Your task to perform on an android device: turn off data saver in the chrome app Image 0: 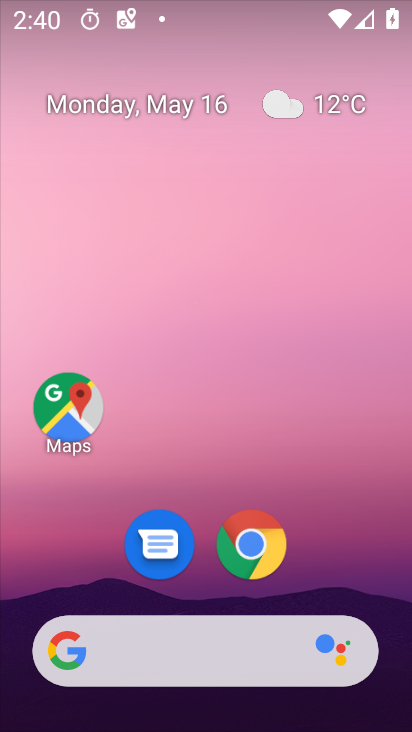
Step 0: click (250, 550)
Your task to perform on an android device: turn off data saver in the chrome app Image 1: 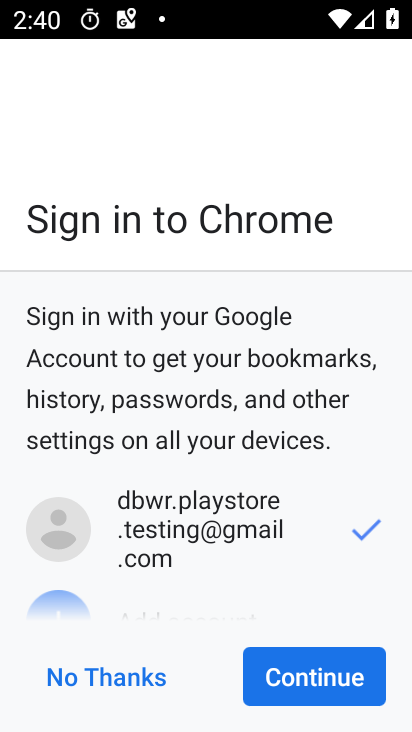
Step 1: click (327, 672)
Your task to perform on an android device: turn off data saver in the chrome app Image 2: 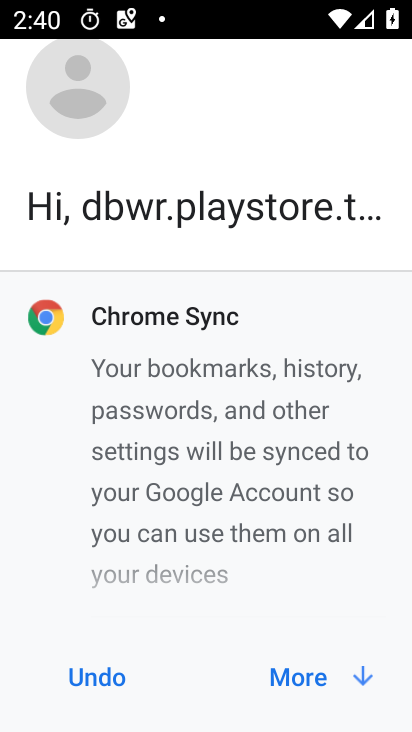
Step 2: click (327, 672)
Your task to perform on an android device: turn off data saver in the chrome app Image 3: 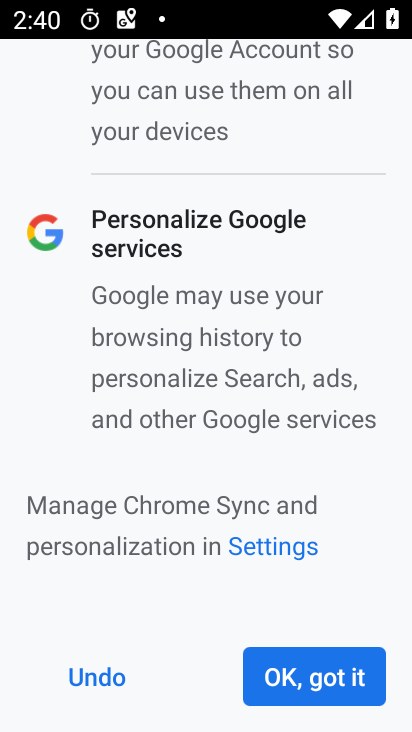
Step 3: click (316, 658)
Your task to perform on an android device: turn off data saver in the chrome app Image 4: 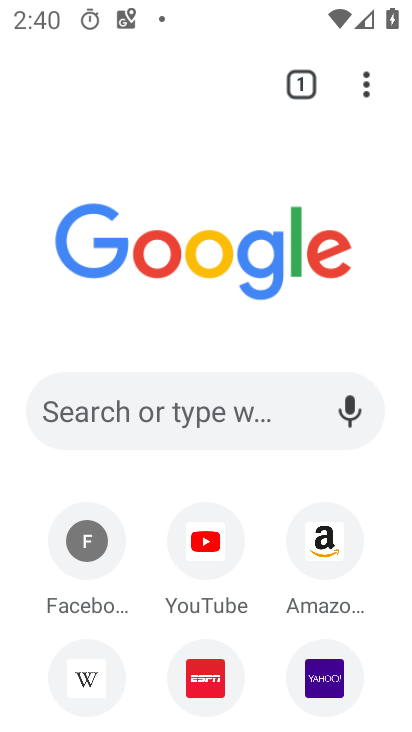
Step 4: click (366, 93)
Your task to perform on an android device: turn off data saver in the chrome app Image 5: 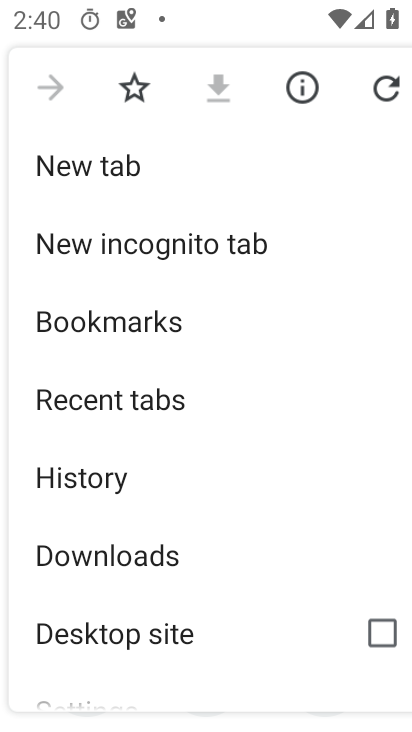
Step 5: drag from (148, 652) to (152, 269)
Your task to perform on an android device: turn off data saver in the chrome app Image 6: 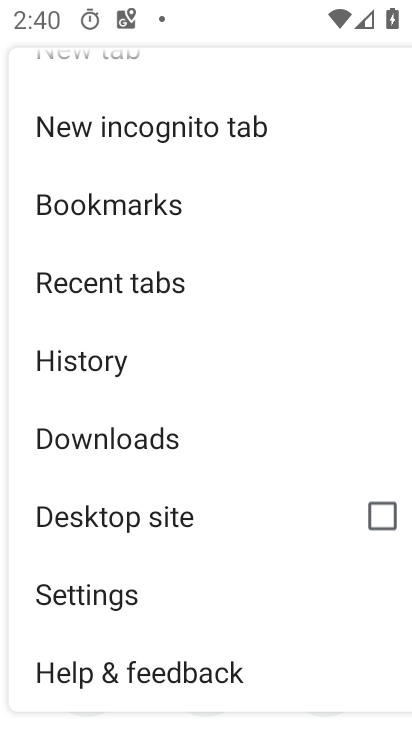
Step 6: click (109, 585)
Your task to perform on an android device: turn off data saver in the chrome app Image 7: 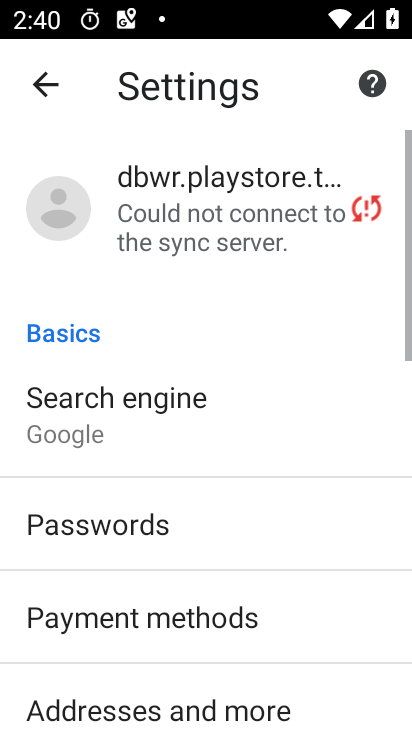
Step 7: drag from (175, 662) to (191, 253)
Your task to perform on an android device: turn off data saver in the chrome app Image 8: 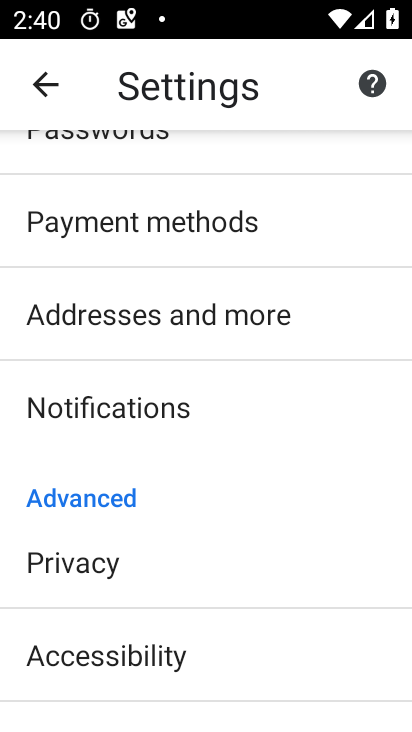
Step 8: drag from (139, 647) to (137, 275)
Your task to perform on an android device: turn off data saver in the chrome app Image 9: 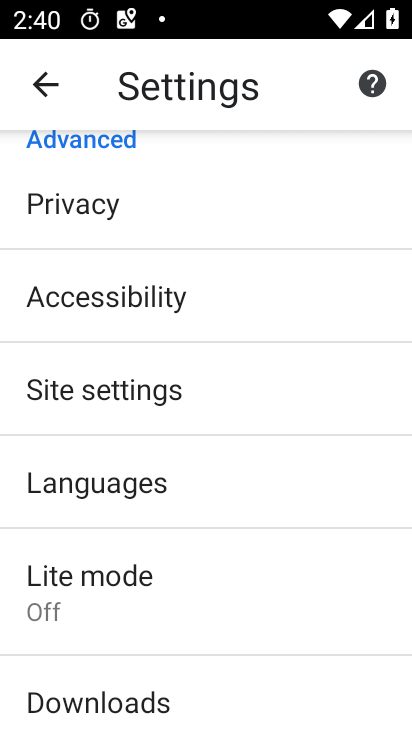
Step 9: click (102, 574)
Your task to perform on an android device: turn off data saver in the chrome app Image 10: 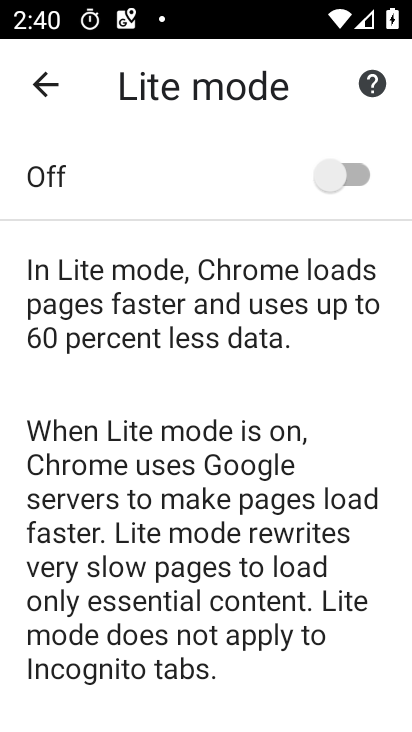
Step 10: click (364, 170)
Your task to perform on an android device: turn off data saver in the chrome app Image 11: 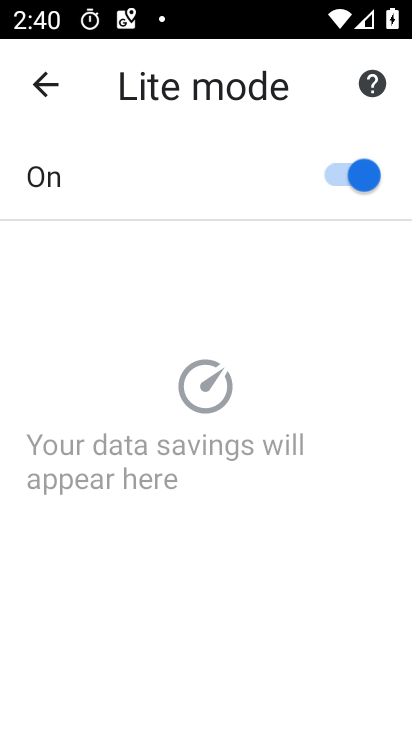
Step 11: task complete